Your task to perform on an android device: open device folders in google photos Image 0: 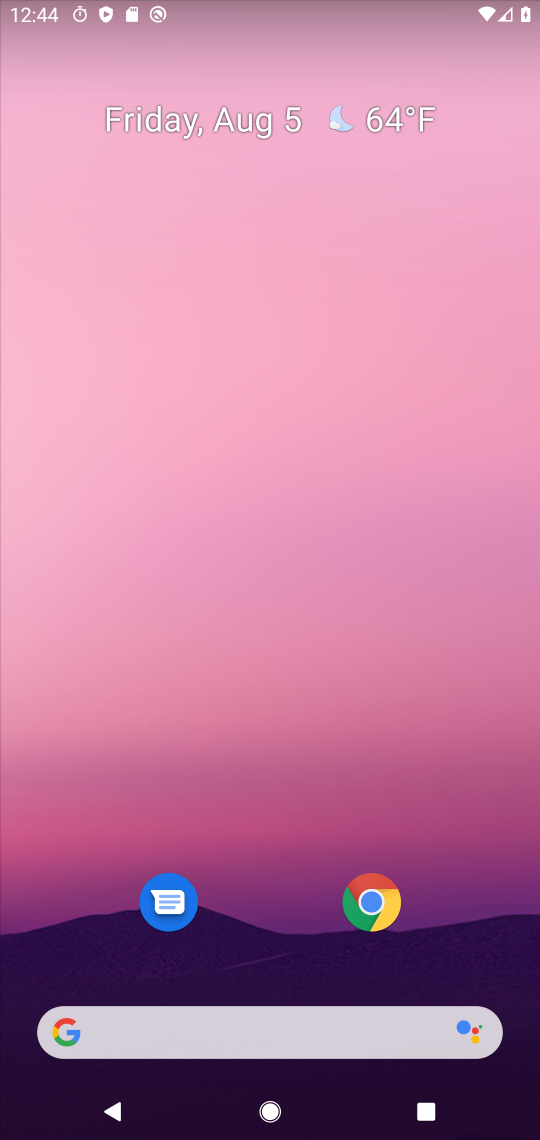
Step 0: drag from (364, 1054) to (375, 375)
Your task to perform on an android device: open device folders in google photos Image 1: 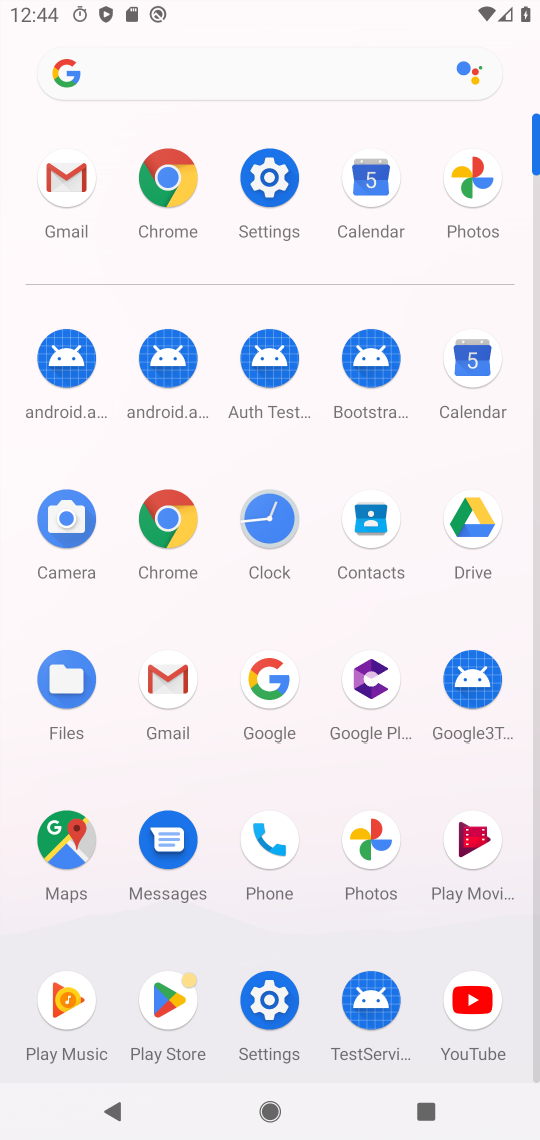
Step 1: click (489, 185)
Your task to perform on an android device: open device folders in google photos Image 2: 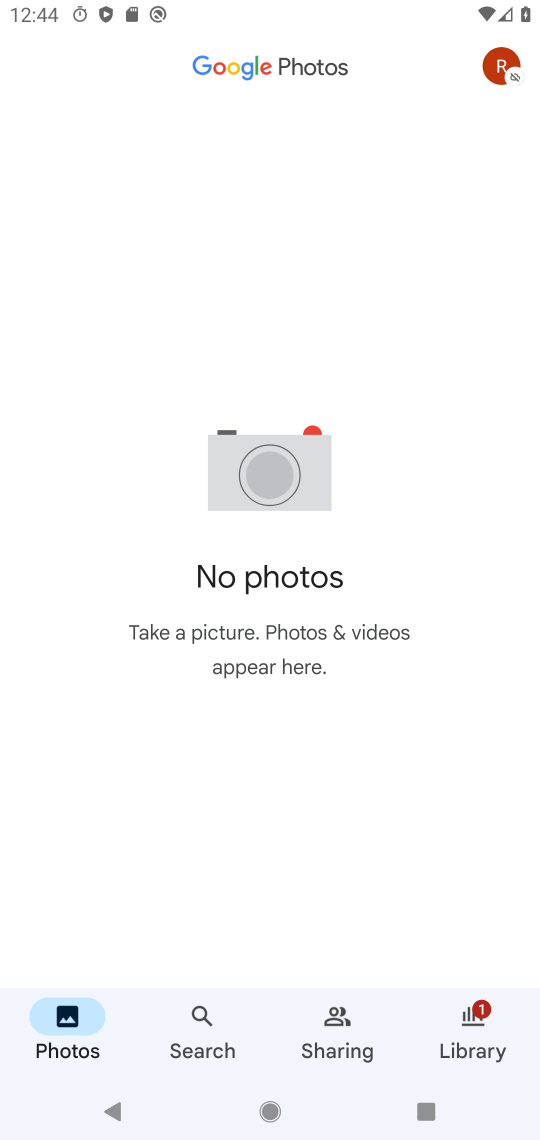
Step 2: click (195, 1022)
Your task to perform on an android device: open device folders in google photos Image 3: 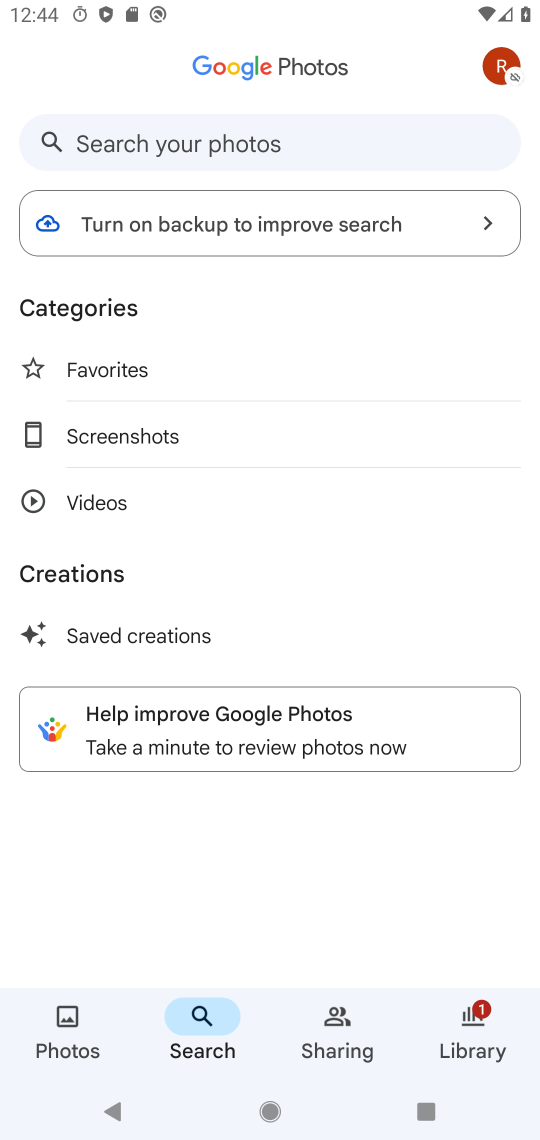
Step 3: click (176, 153)
Your task to perform on an android device: open device folders in google photos Image 4: 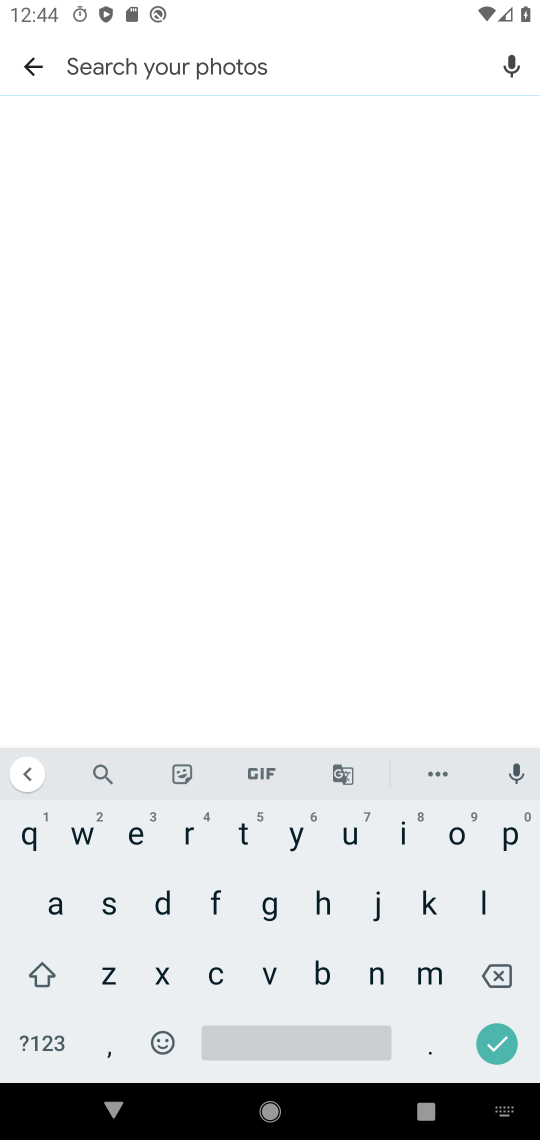
Step 4: click (160, 908)
Your task to perform on an android device: open device folders in google photos Image 5: 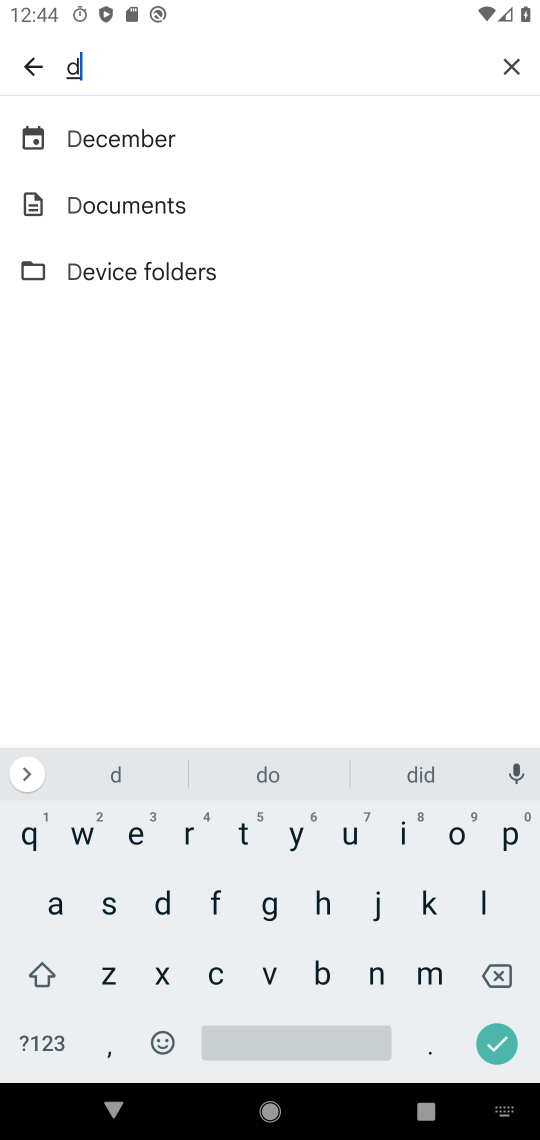
Step 5: click (158, 277)
Your task to perform on an android device: open device folders in google photos Image 6: 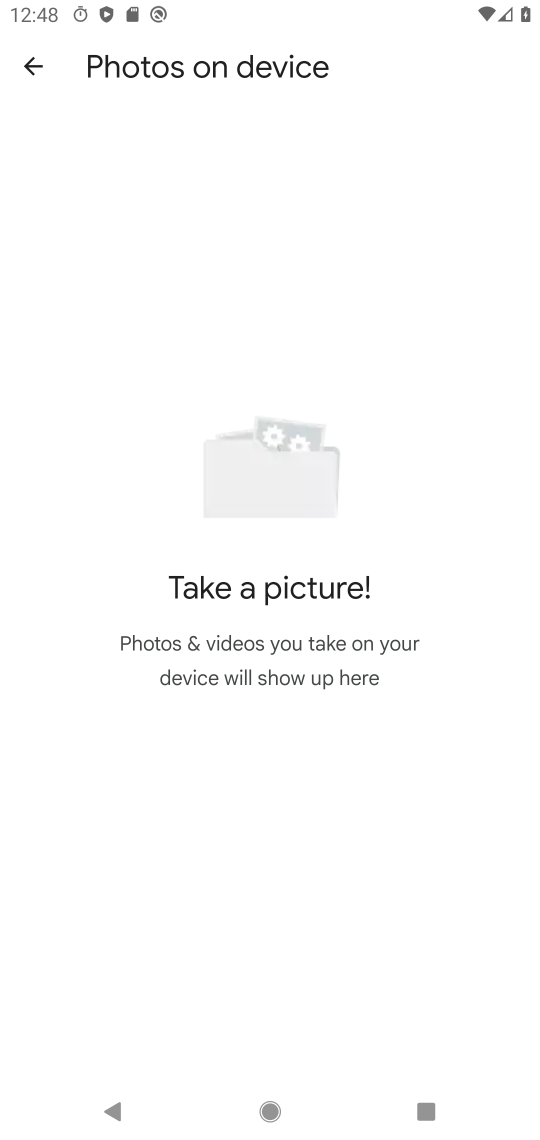
Step 6: task complete